Your task to perform on an android device: When is my next appointment? Image 0: 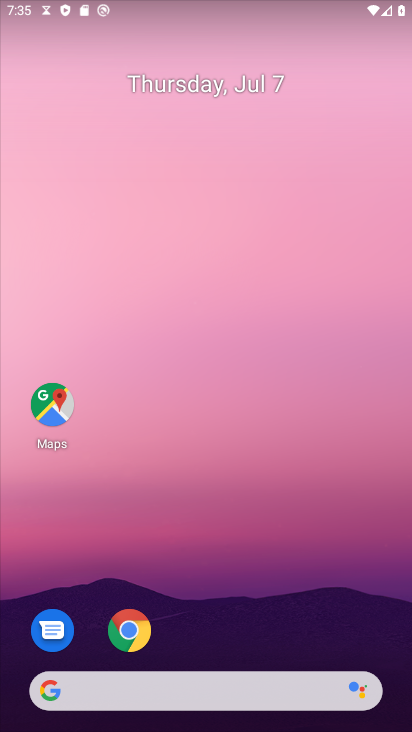
Step 0: drag from (197, 686) to (182, 562)
Your task to perform on an android device: When is my next appointment? Image 1: 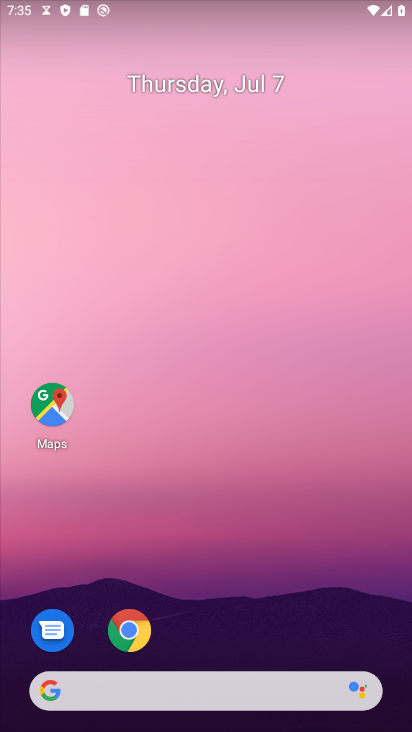
Step 1: drag from (161, 688) to (294, 86)
Your task to perform on an android device: When is my next appointment? Image 2: 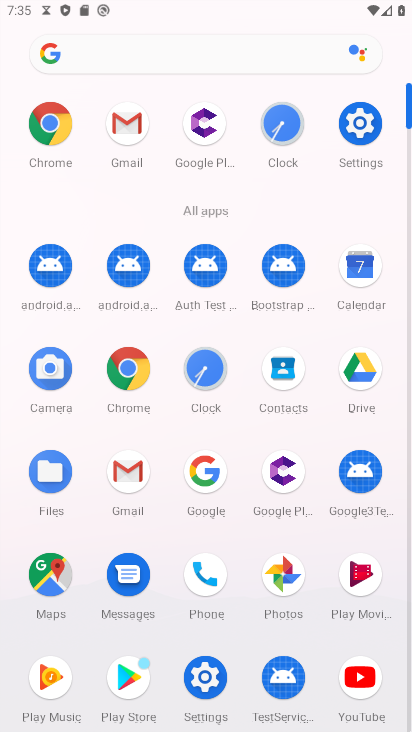
Step 2: click (360, 269)
Your task to perform on an android device: When is my next appointment? Image 3: 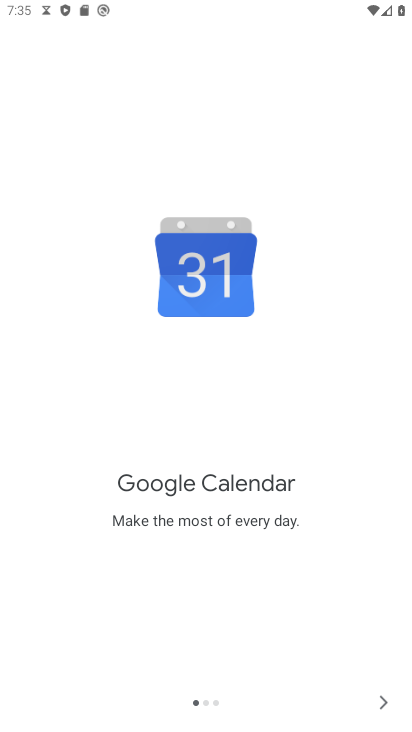
Step 3: click (379, 697)
Your task to perform on an android device: When is my next appointment? Image 4: 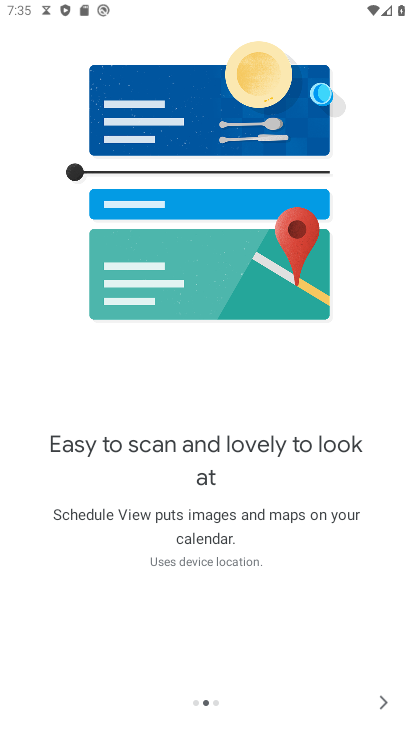
Step 4: click (379, 697)
Your task to perform on an android device: When is my next appointment? Image 5: 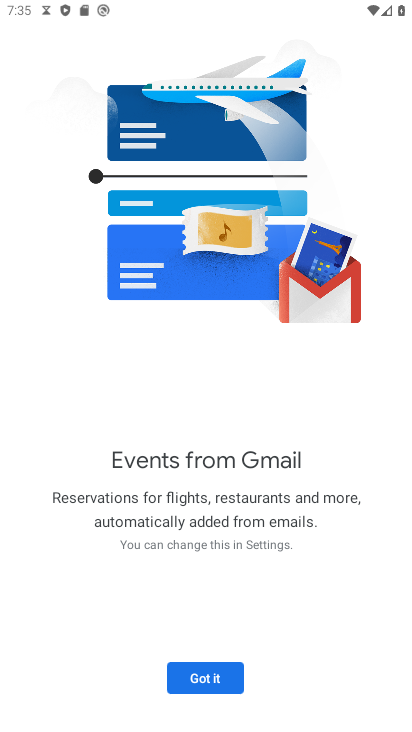
Step 5: click (193, 676)
Your task to perform on an android device: When is my next appointment? Image 6: 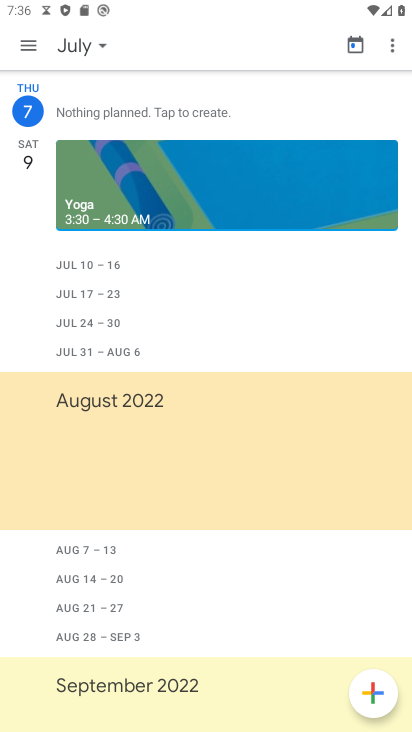
Step 6: task complete